Your task to perform on an android device: toggle notifications settings in the gmail app Image 0: 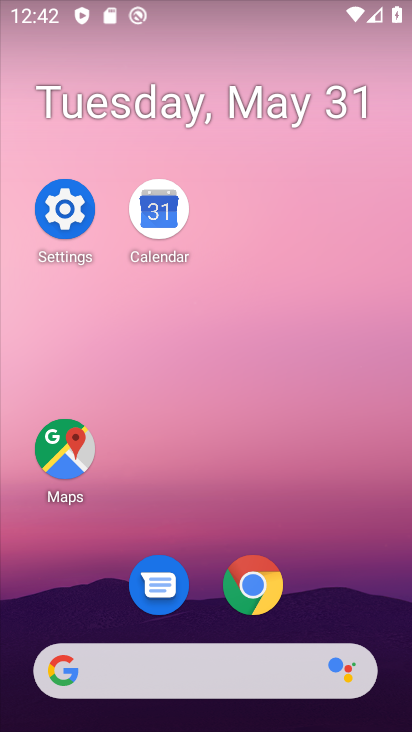
Step 0: drag from (364, 366) to (367, 108)
Your task to perform on an android device: toggle notifications settings in the gmail app Image 1: 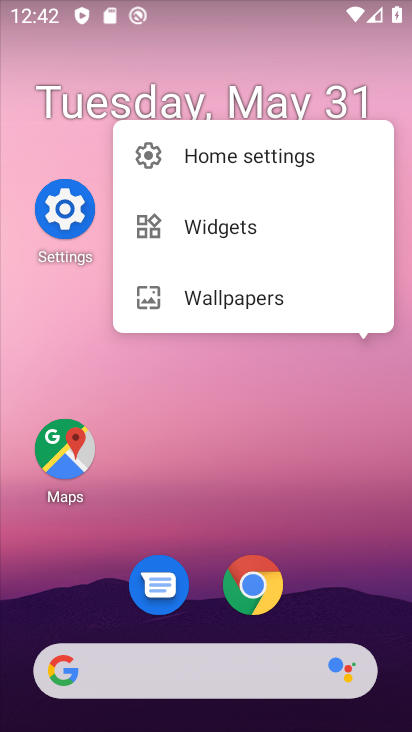
Step 1: click (343, 477)
Your task to perform on an android device: toggle notifications settings in the gmail app Image 2: 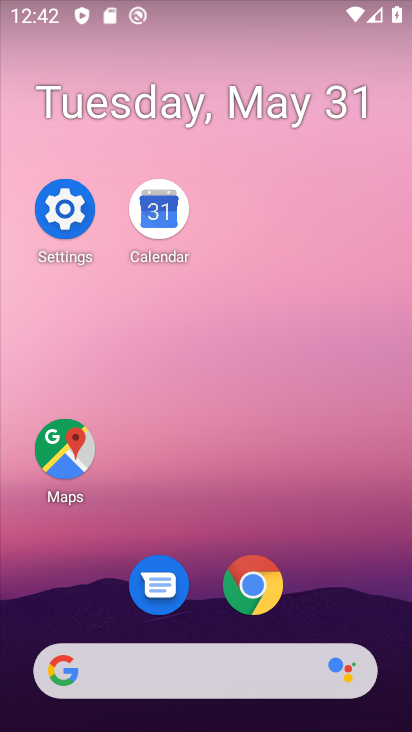
Step 2: click (357, 474)
Your task to perform on an android device: toggle notifications settings in the gmail app Image 3: 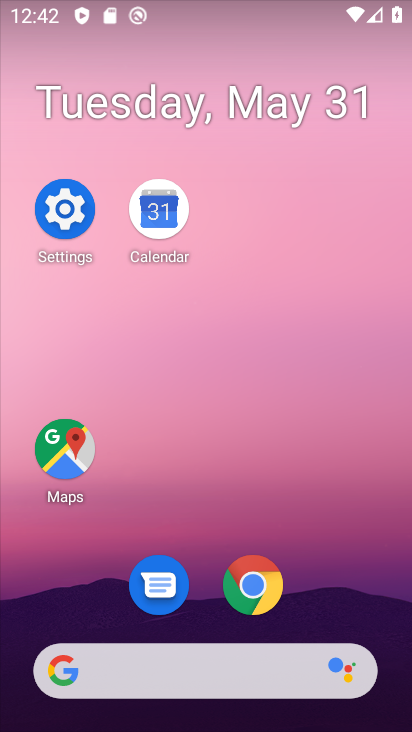
Step 3: drag from (359, 393) to (384, 163)
Your task to perform on an android device: toggle notifications settings in the gmail app Image 4: 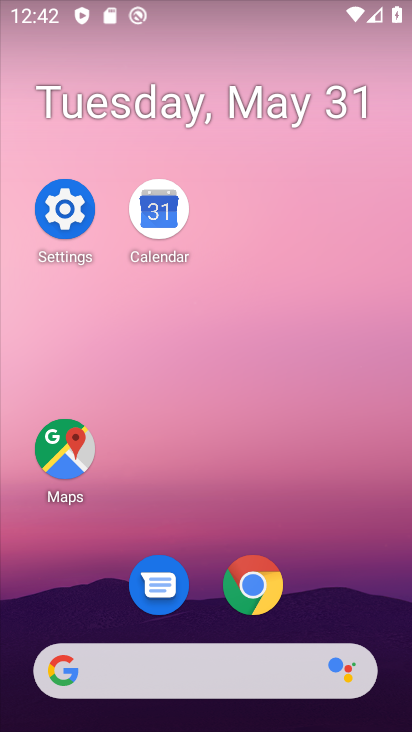
Step 4: drag from (330, 602) to (389, 31)
Your task to perform on an android device: toggle notifications settings in the gmail app Image 5: 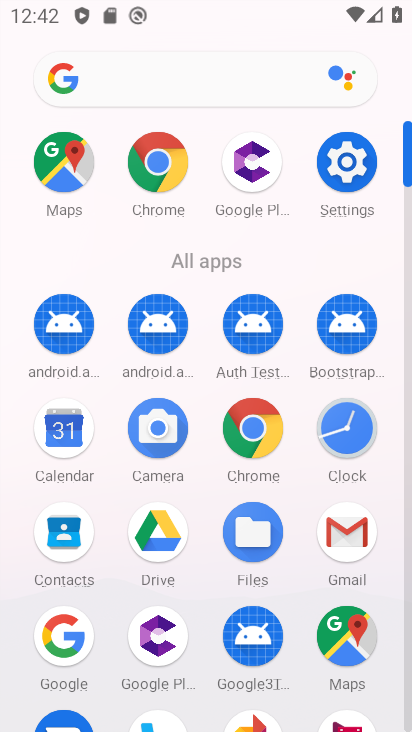
Step 5: drag from (345, 539) to (102, 340)
Your task to perform on an android device: toggle notifications settings in the gmail app Image 6: 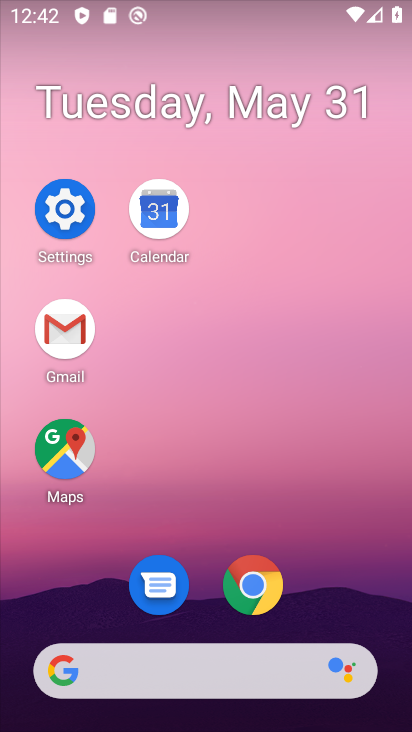
Step 6: click (85, 338)
Your task to perform on an android device: toggle notifications settings in the gmail app Image 7: 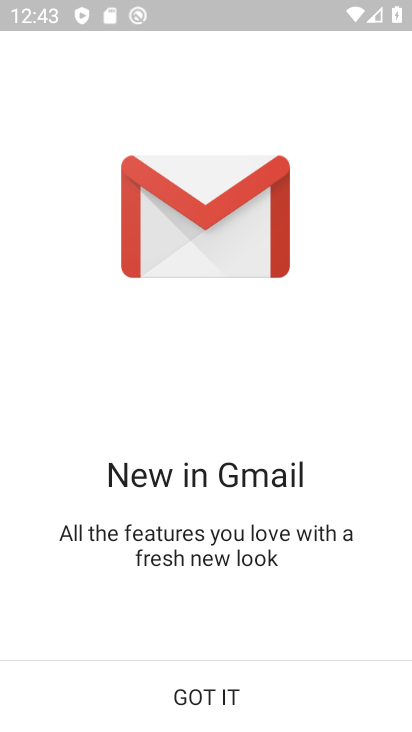
Step 7: click (223, 656)
Your task to perform on an android device: toggle notifications settings in the gmail app Image 8: 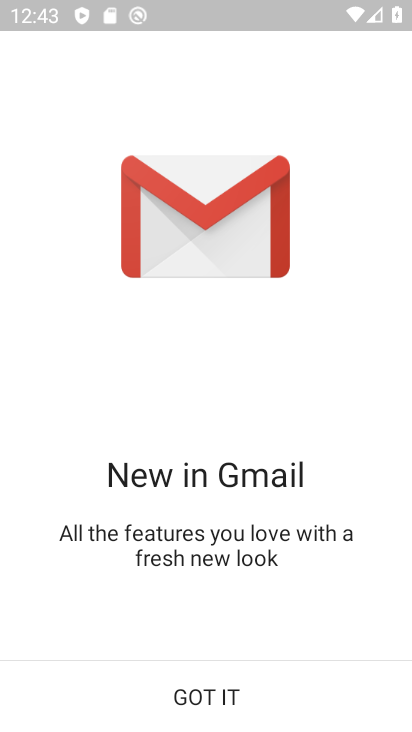
Step 8: click (227, 681)
Your task to perform on an android device: toggle notifications settings in the gmail app Image 9: 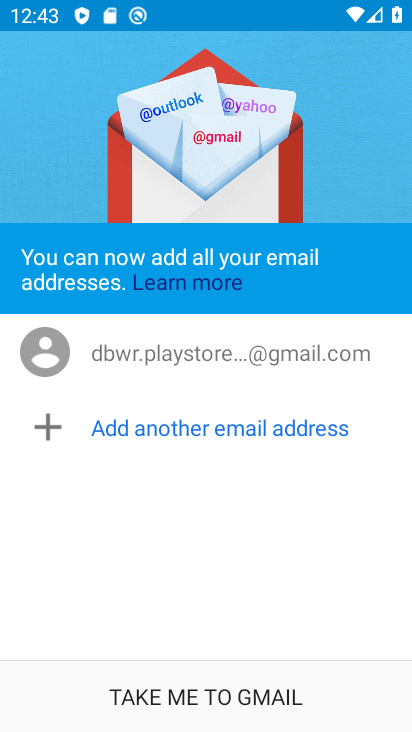
Step 9: click (243, 701)
Your task to perform on an android device: toggle notifications settings in the gmail app Image 10: 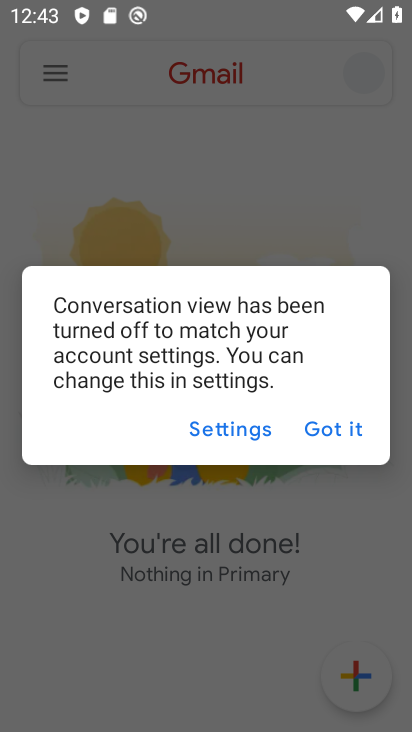
Step 10: click (326, 439)
Your task to perform on an android device: toggle notifications settings in the gmail app Image 11: 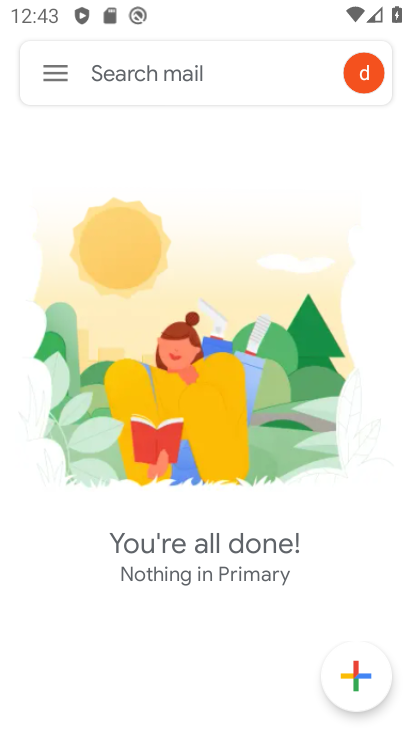
Step 11: click (59, 87)
Your task to perform on an android device: toggle notifications settings in the gmail app Image 12: 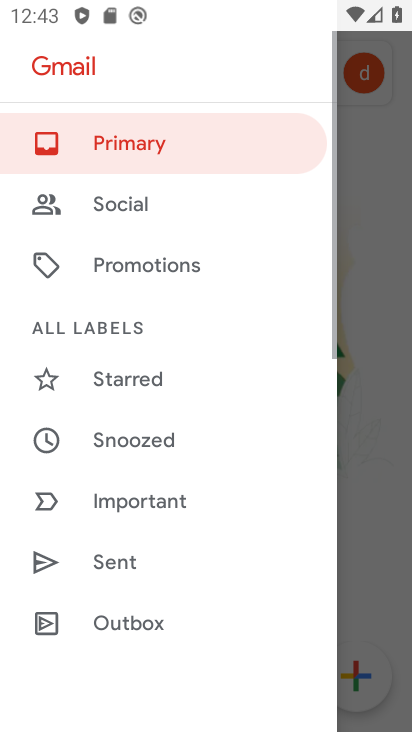
Step 12: drag from (169, 572) to (257, 209)
Your task to perform on an android device: toggle notifications settings in the gmail app Image 13: 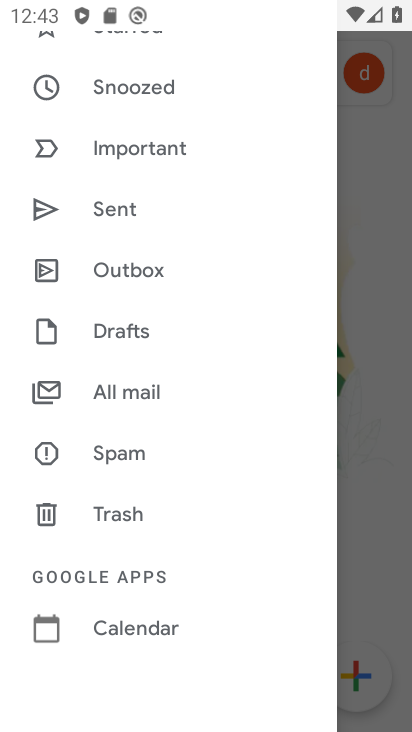
Step 13: drag from (173, 502) to (189, 245)
Your task to perform on an android device: toggle notifications settings in the gmail app Image 14: 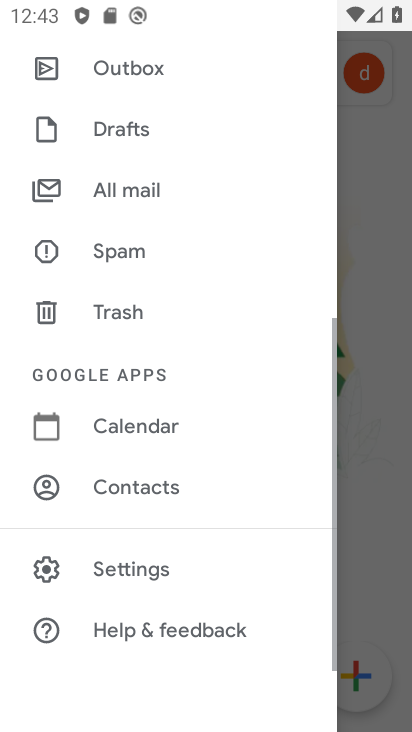
Step 14: click (148, 565)
Your task to perform on an android device: toggle notifications settings in the gmail app Image 15: 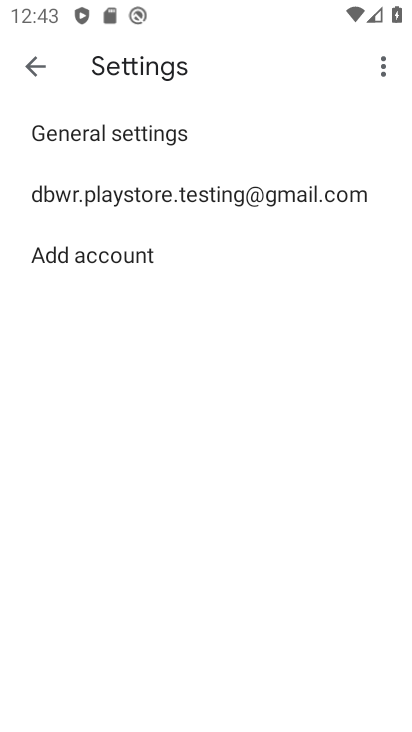
Step 15: click (179, 204)
Your task to perform on an android device: toggle notifications settings in the gmail app Image 16: 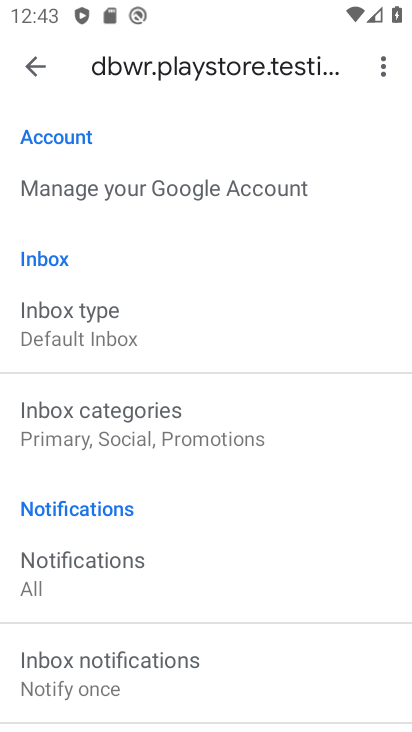
Step 16: click (117, 569)
Your task to perform on an android device: toggle notifications settings in the gmail app Image 17: 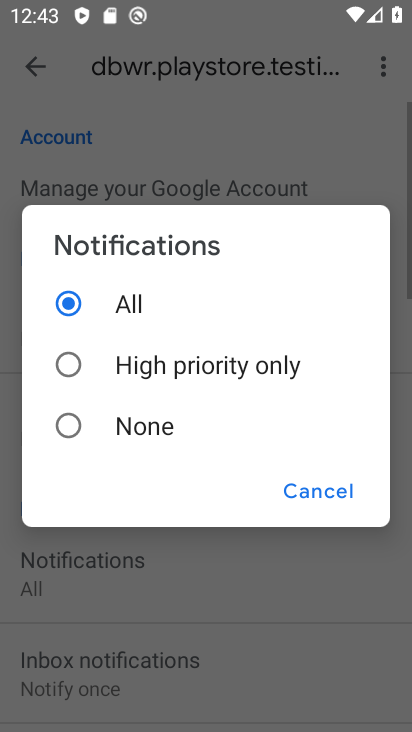
Step 17: click (108, 408)
Your task to perform on an android device: toggle notifications settings in the gmail app Image 18: 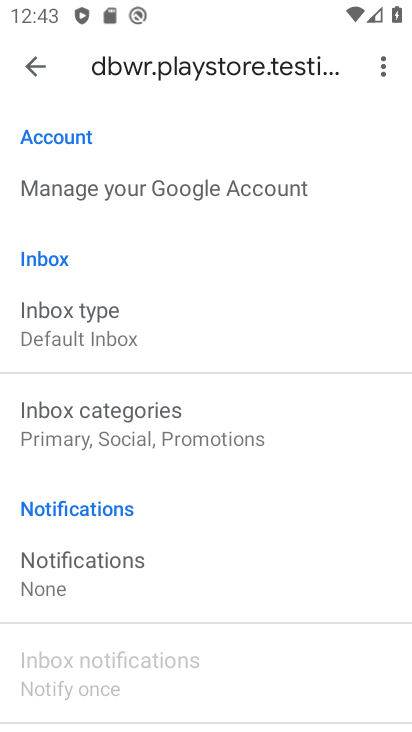
Step 18: task complete